Your task to perform on an android device: turn on location history Image 0: 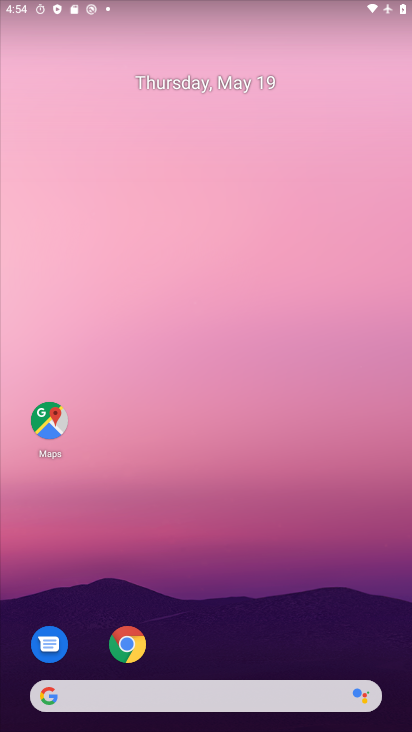
Step 0: drag from (138, 487) to (80, 224)
Your task to perform on an android device: turn on location history Image 1: 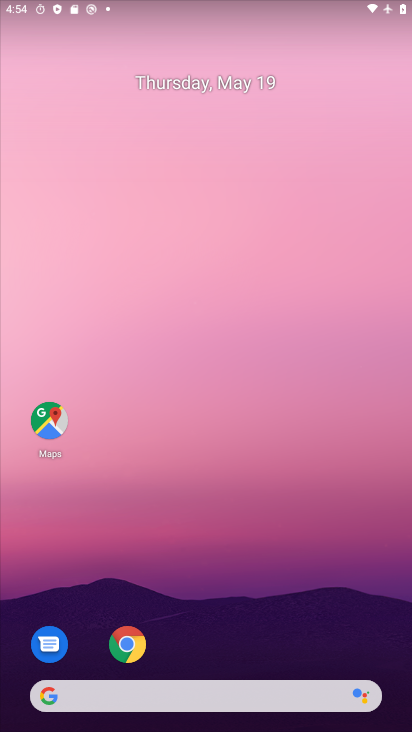
Step 1: drag from (162, 670) to (162, 160)
Your task to perform on an android device: turn on location history Image 2: 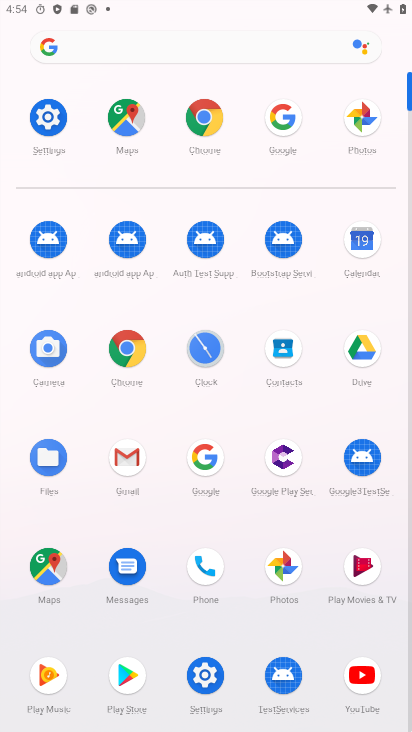
Step 2: click (44, 124)
Your task to perform on an android device: turn on location history Image 3: 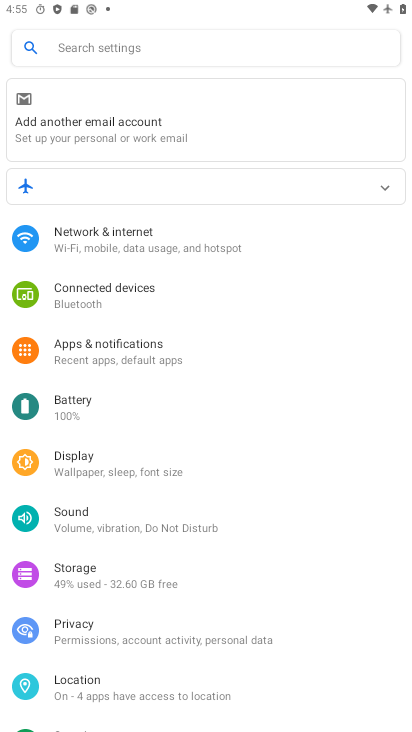
Step 3: click (114, 691)
Your task to perform on an android device: turn on location history Image 4: 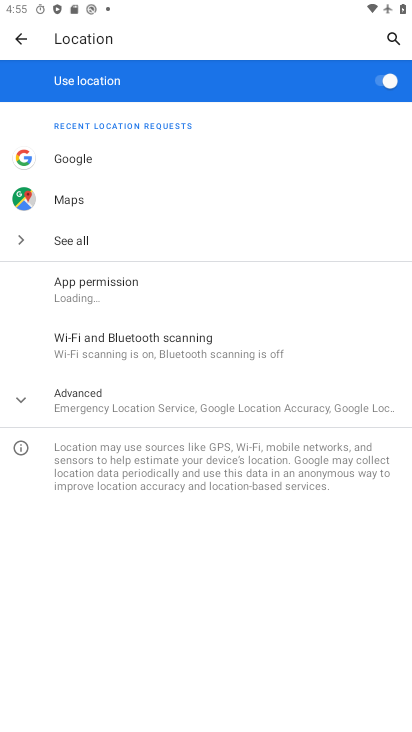
Step 4: click (120, 396)
Your task to perform on an android device: turn on location history Image 5: 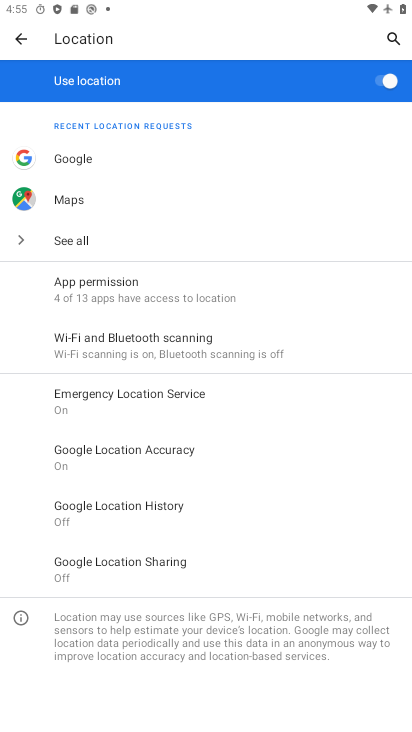
Step 5: click (120, 500)
Your task to perform on an android device: turn on location history Image 6: 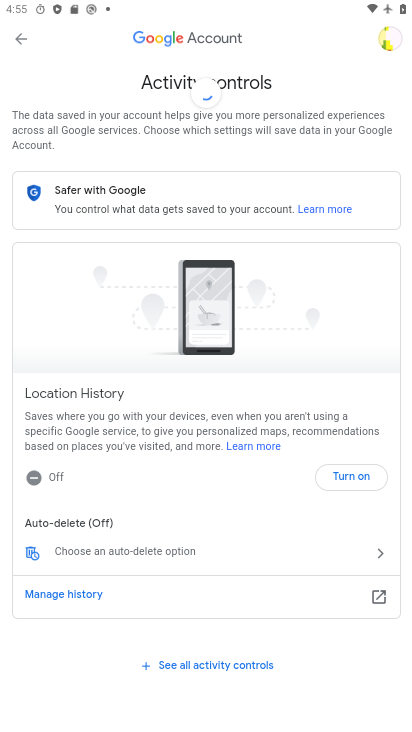
Step 6: click (348, 475)
Your task to perform on an android device: turn on location history Image 7: 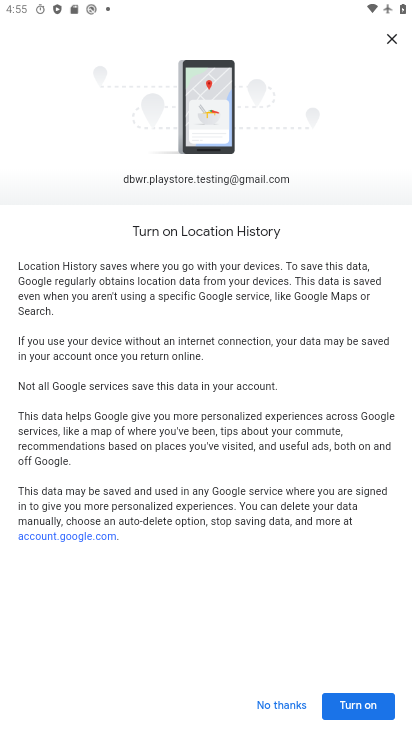
Step 7: click (347, 707)
Your task to perform on an android device: turn on location history Image 8: 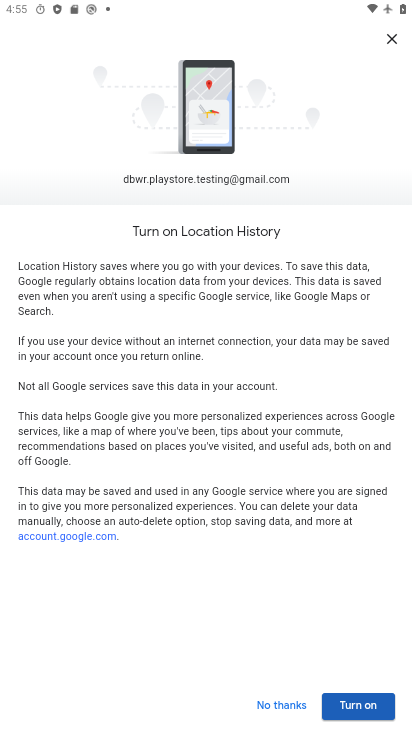
Step 8: click (365, 705)
Your task to perform on an android device: turn on location history Image 9: 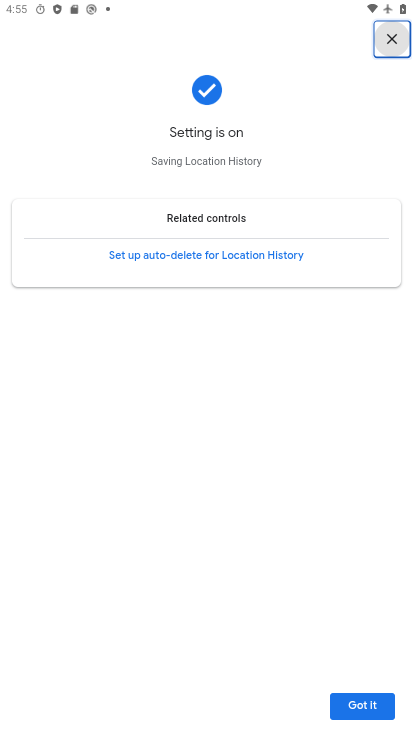
Step 9: click (343, 704)
Your task to perform on an android device: turn on location history Image 10: 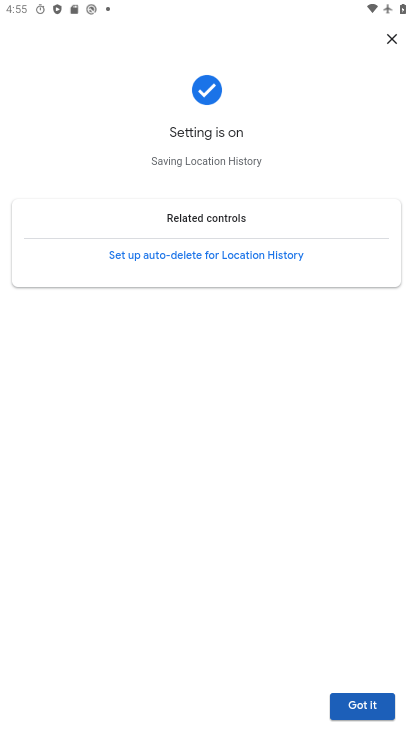
Step 10: task complete